Your task to perform on an android device: change the upload size in google photos Image 0: 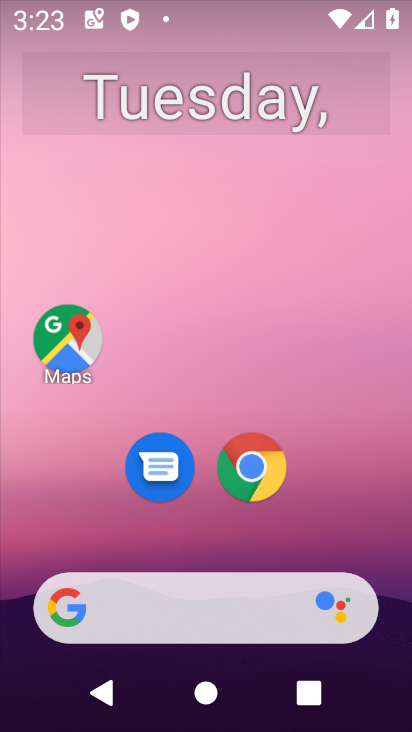
Step 0: drag from (232, 577) to (342, 31)
Your task to perform on an android device: change the upload size in google photos Image 1: 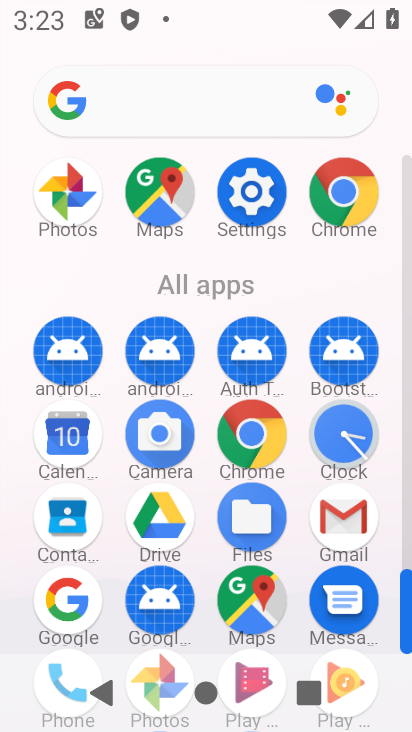
Step 1: drag from (113, 636) to (79, 279)
Your task to perform on an android device: change the upload size in google photos Image 2: 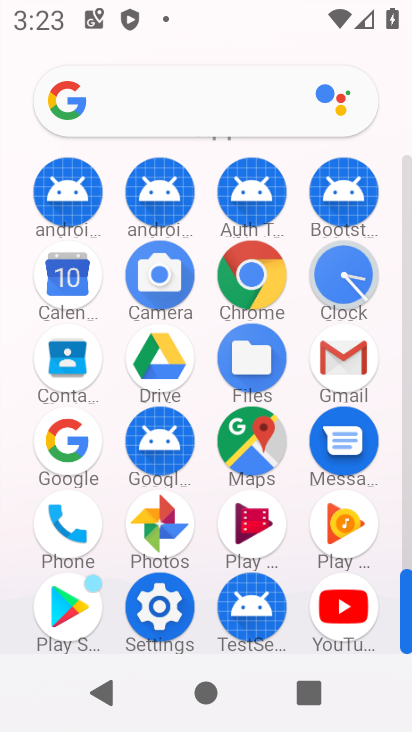
Step 2: click (153, 521)
Your task to perform on an android device: change the upload size in google photos Image 3: 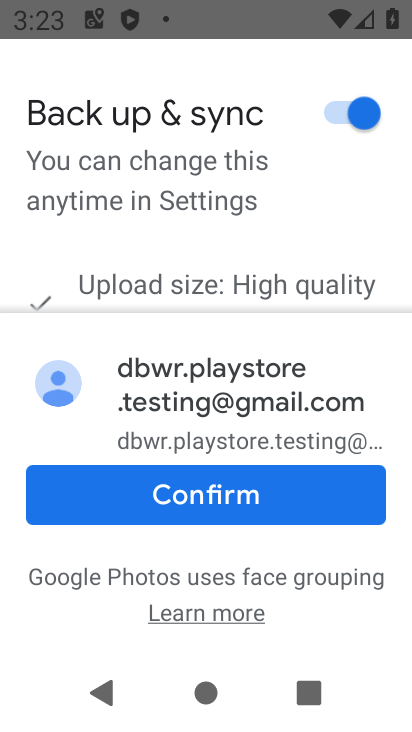
Step 3: click (196, 491)
Your task to perform on an android device: change the upload size in google photos Image 4: 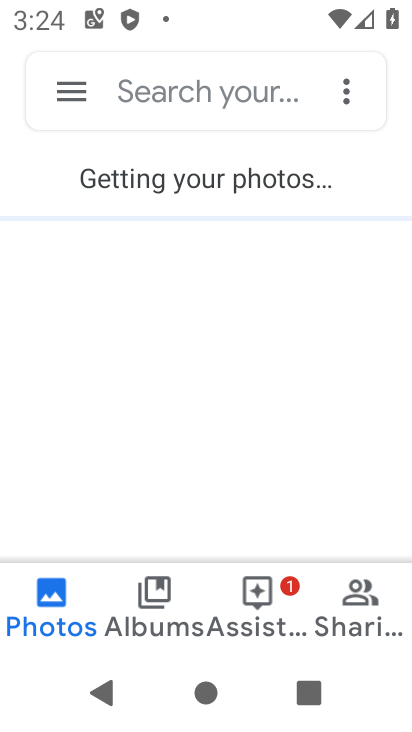
Step 4: task complete